Your task to perform on an android device: add a contact in the contacts app Image 0: 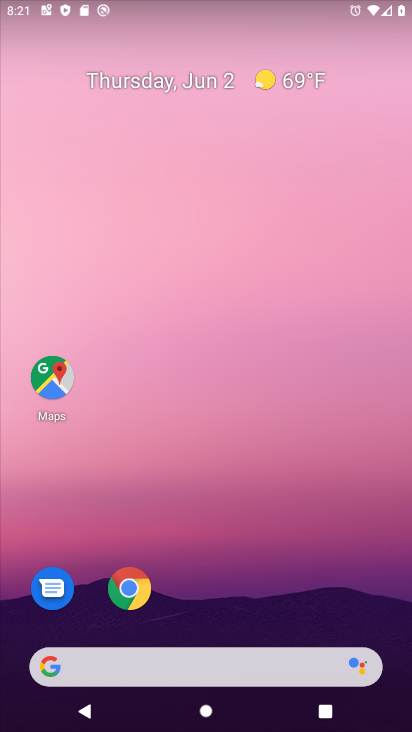
Step 0: drag from (238, 727) to (233, 37)
Your task to perform on an android device: add a contact in the contacts app Image 1: 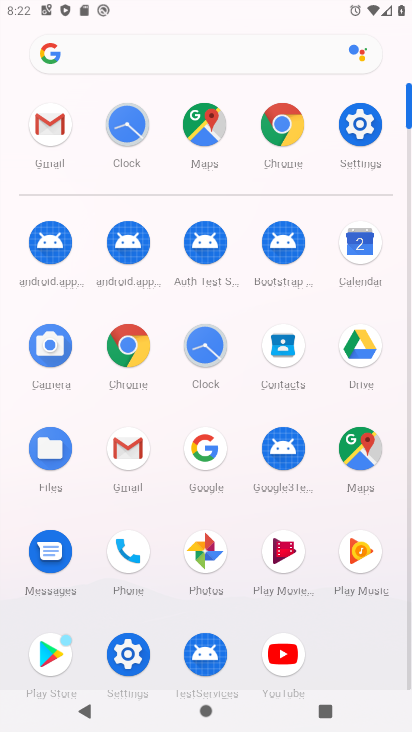
Step 1: click (283, 346)
Your task to perform on an android device: add a contact in the contacts app Image 2: 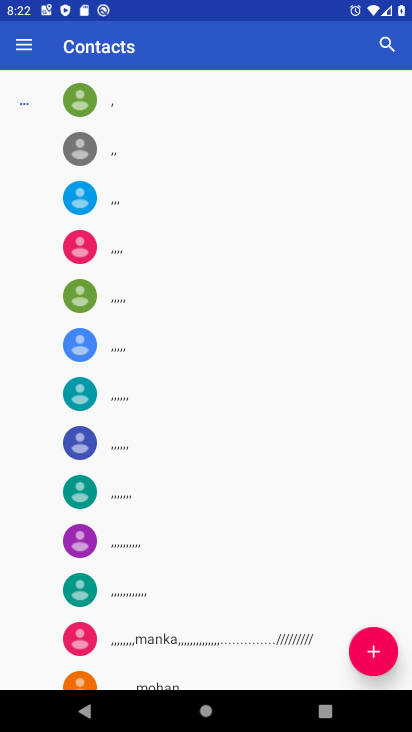
Step 2: click (372, 652)
Your task to perform on an android device: add a contact in the contacts app Image 3: 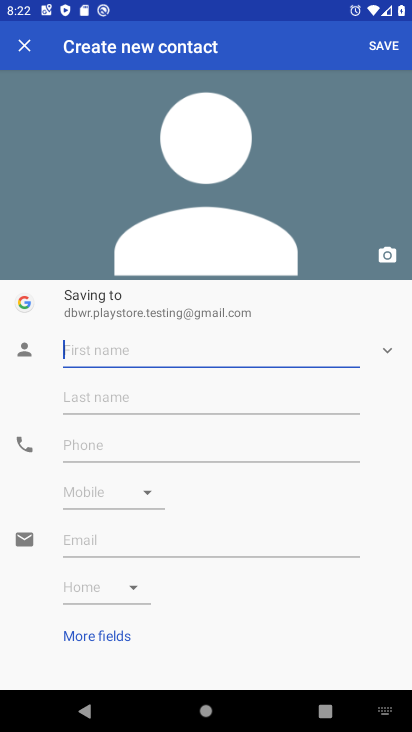
Step 3: type "jana gana mana"
Your task to perform on an android device: add a contact in the contacts app Image 4: 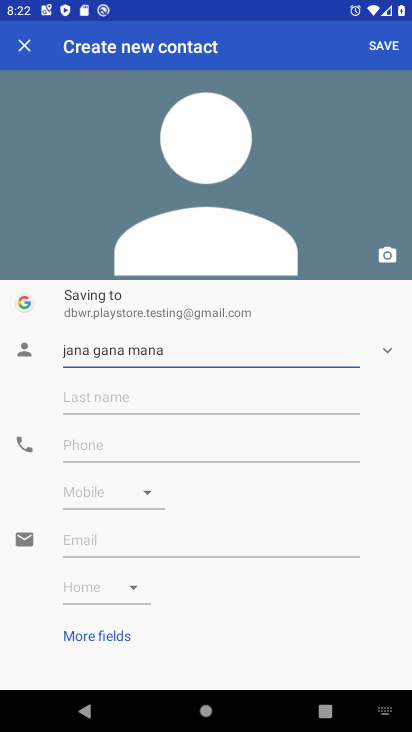
Step 4: click (87, 438)
Your task to perform on an android device: add a contact in the contacts app Image 5: 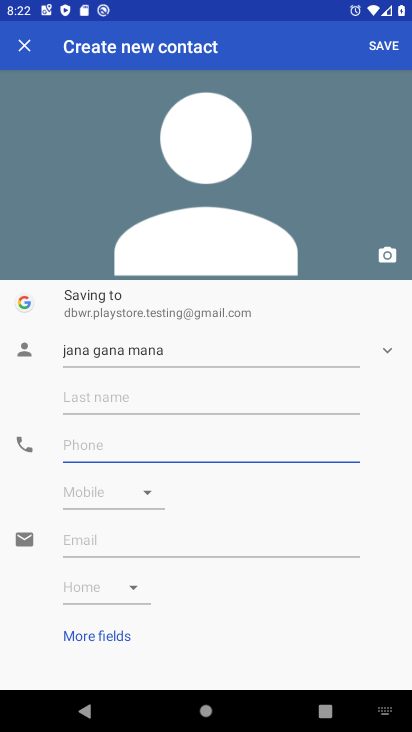
Step 5: type "7878787"
Your task to perform on an android device: add a contact in the contacts app Image 6: 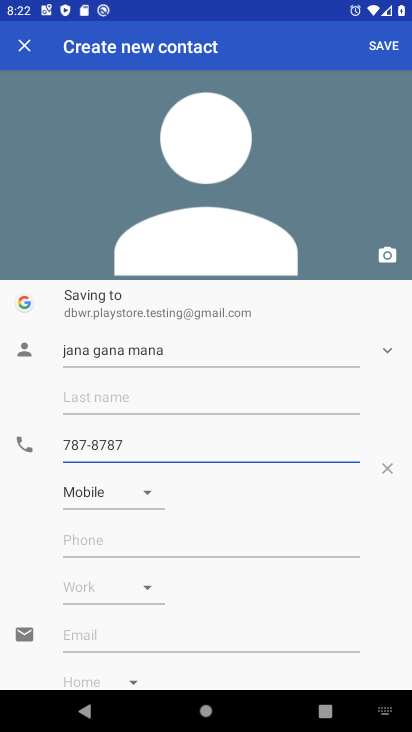
Step 6: click (388, 44)
Your task to perform on an android device: add a contact in the contacts app Image 7: 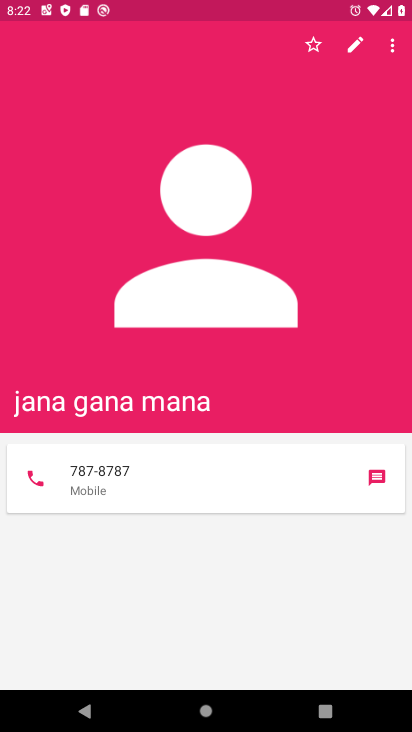
Step 7: task complete